Your task to perform on an android device: toggle notifications settings in the gmail app Image 0: 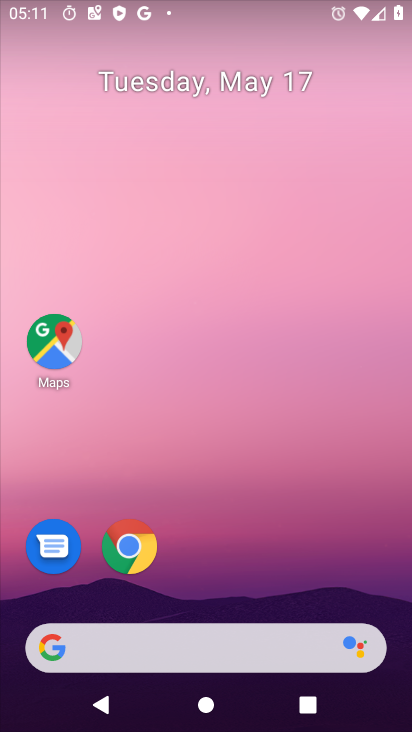
Step 0: drag from (393, 664) to (361, 306)
Your task to perform on an android device: toggle notifications settings in the gmail app Image 1: 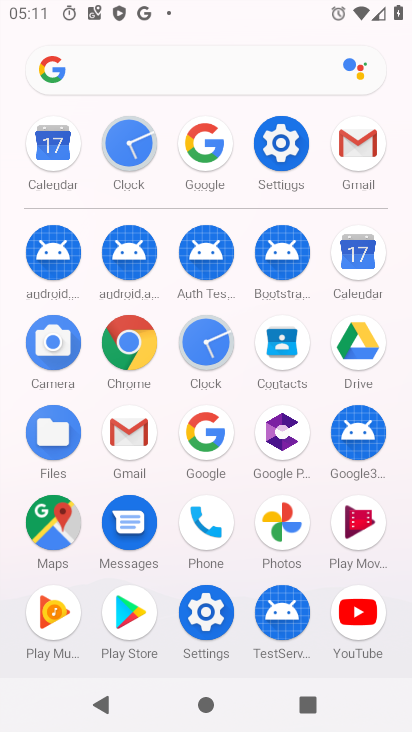
Step 1: click (134, 429)
Your task to perform on an android device: toggle notifications settings in the gmail app Image 2: 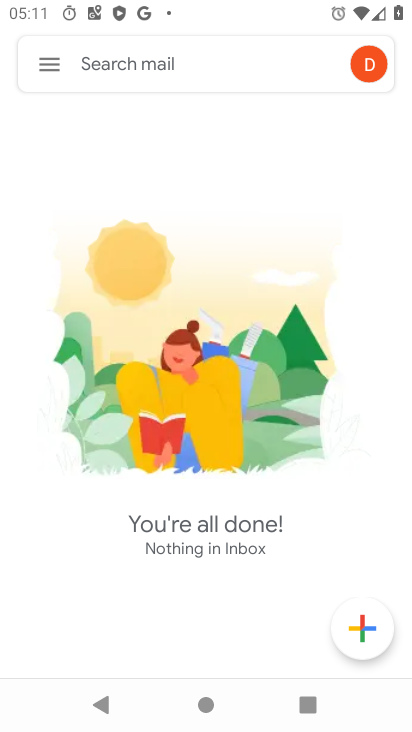
Step 2: click (55, 59)
Your task to perform on an android device: toggle notifications settings in the gmail app Image 3: 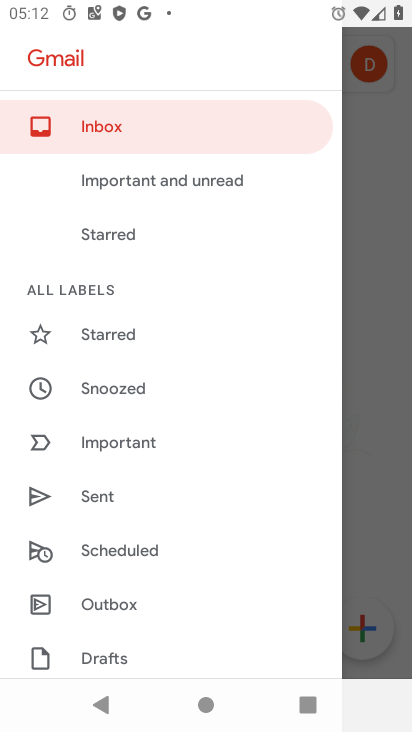
Step 3: drag from (262, 633) to (244, 403)
Your task to perform on an android device: toggle notifications settings in the gmail app Image 4: 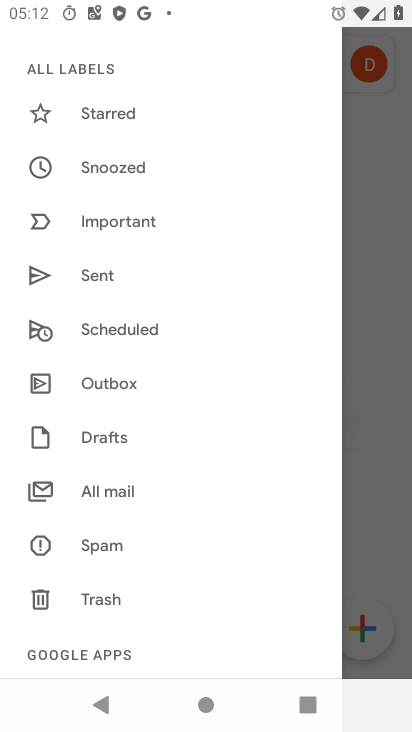
Step 4: drag from (177, 592) to (186, 439)
Your task to perform on an android device: toggle notifications settings in the gmail app Image 5: 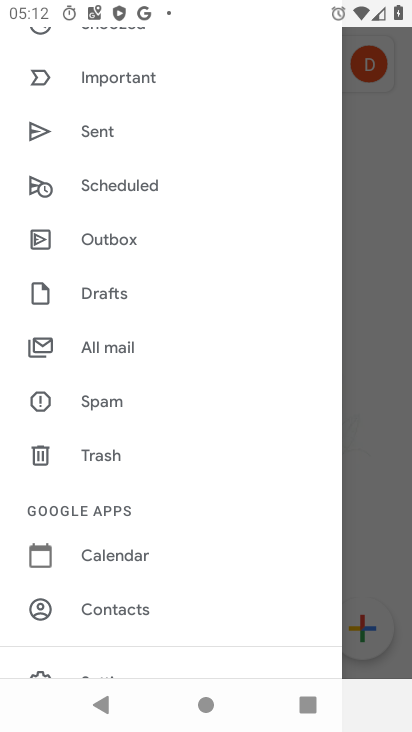
Step 5: drag from (219, 483) to (218, 373)
Your task to perform on an android device: toggle notifications settings in the gmail app Image 6: 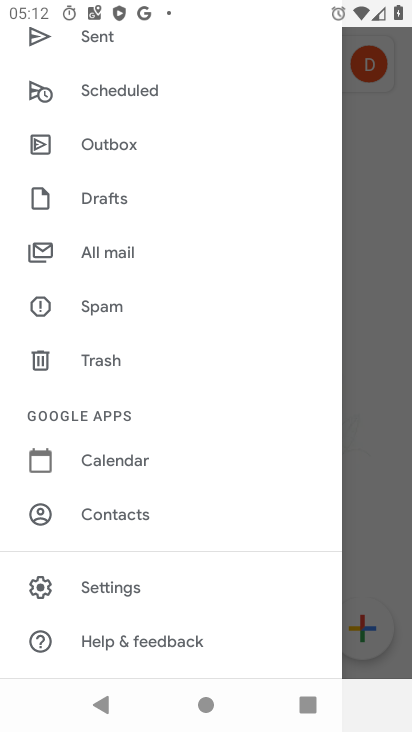
Step 6: click (121, 587)
Your task to perform on an android device: toggle notifications settings in the gmail app Image 7: 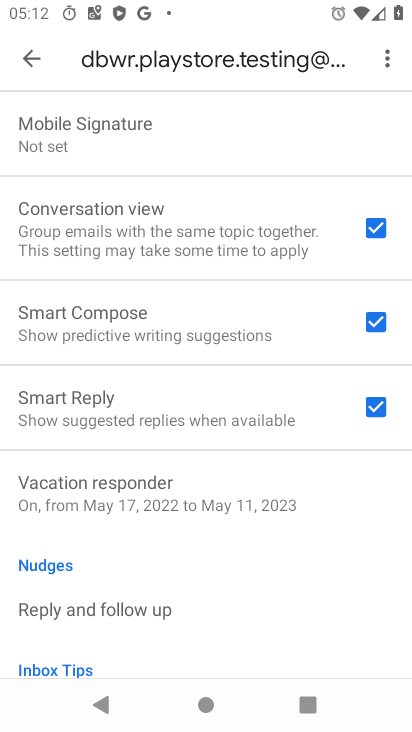
Step 7: click (29, 57)
Your task to perform on an android device: toggle notifications settings in the gmail app Image 8: 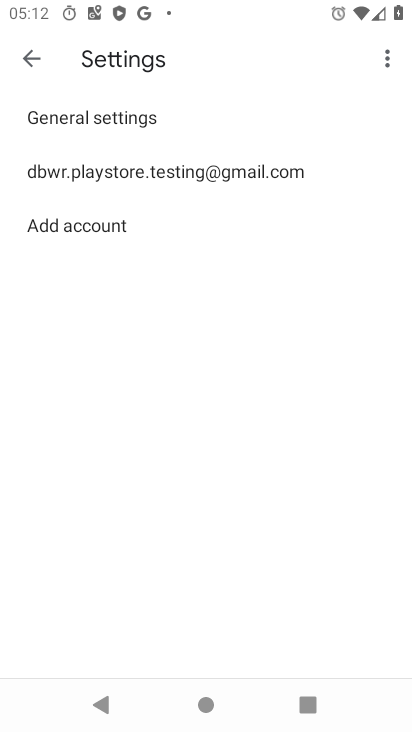
Step 8: click (63, 111)
Your task to perform on an android device: toggle notifications settings in the gmail app Image 9: 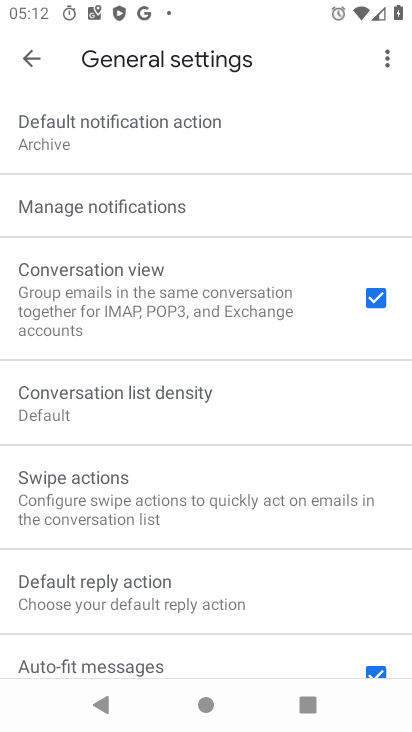
Step 9: click (90, 205)
Your task to perform on an android device: toggle notifications settings in the gmail app Image 10: 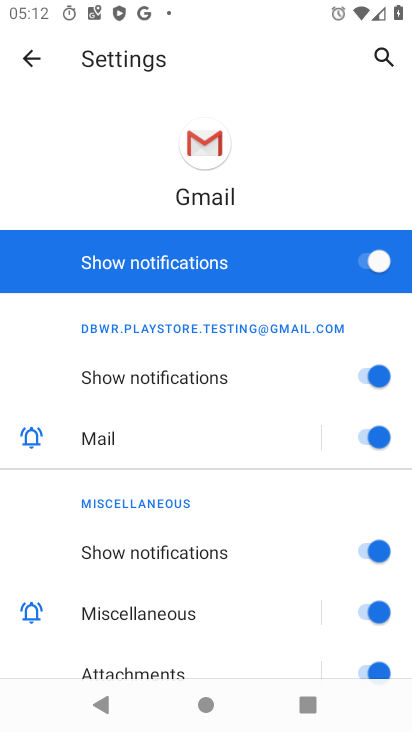
Step 10: click (359, 260)
Your task to perform on an android device: toggle notifications settings in the gmail app Image 11: 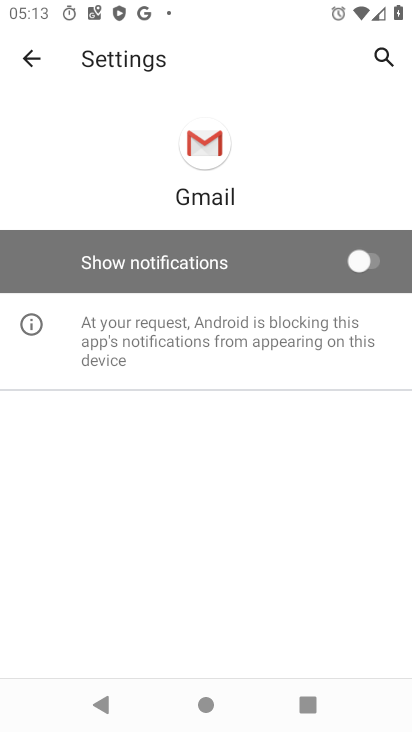
Step 11: task complete